Your task to perform on an android device: open app "NewsBreak: Local News & Alerts" (install if not already installed) and enter user name: "switch@outlook.com" and password: "fabrics" Image 0: 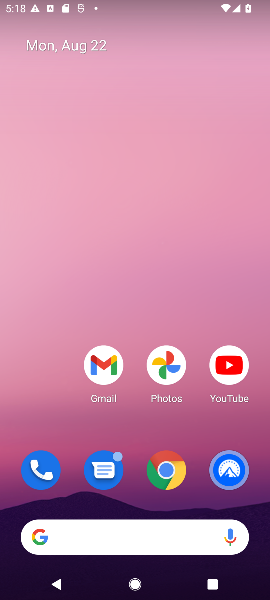
Step 0: drag from (150, 484) to (175, 111)
Your task to perform on an android device: open app "NewsBreak: Local News & Alerts" (install if not already installed) and enter user name: "switch@outlook.com" and password: "fabrics" Image 1: 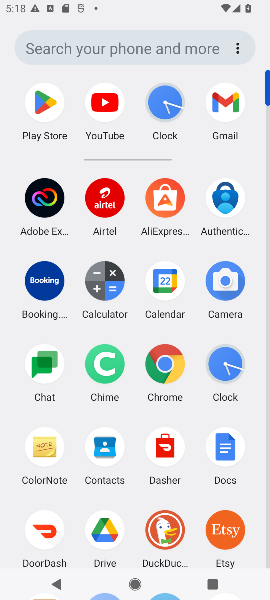
Step 1: click (48, 95)
Your task to perform on an android device: open app "NewsBreak: Local News & Alerts" (install if not already installed) and enter user name: "switch@outlook.com" and password: "fabrics" Image 2: 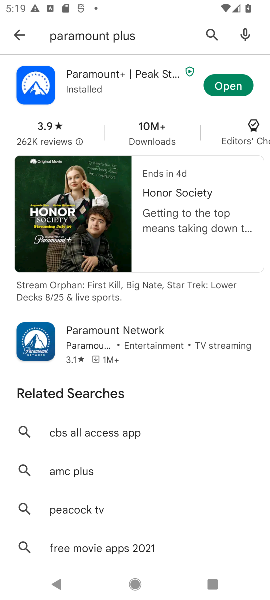
Step 2: task complete